Your task to perform on an android device: turn on showing notifications on the lock screen Image 0: 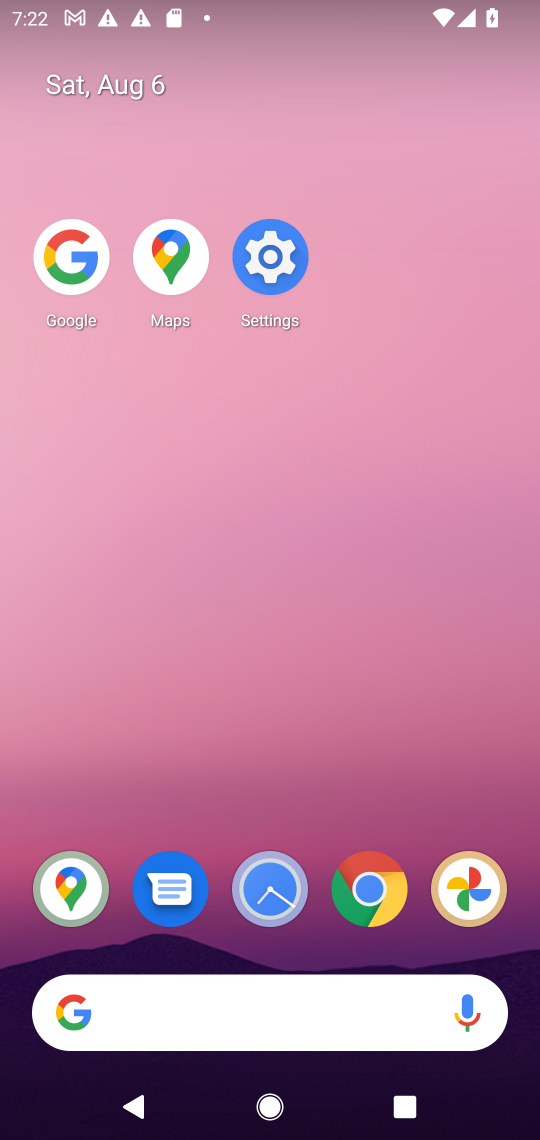
Step 0: click (268, 235)
Your task to perform on an android device: turn on showing notifications on the lock screen Image 1: 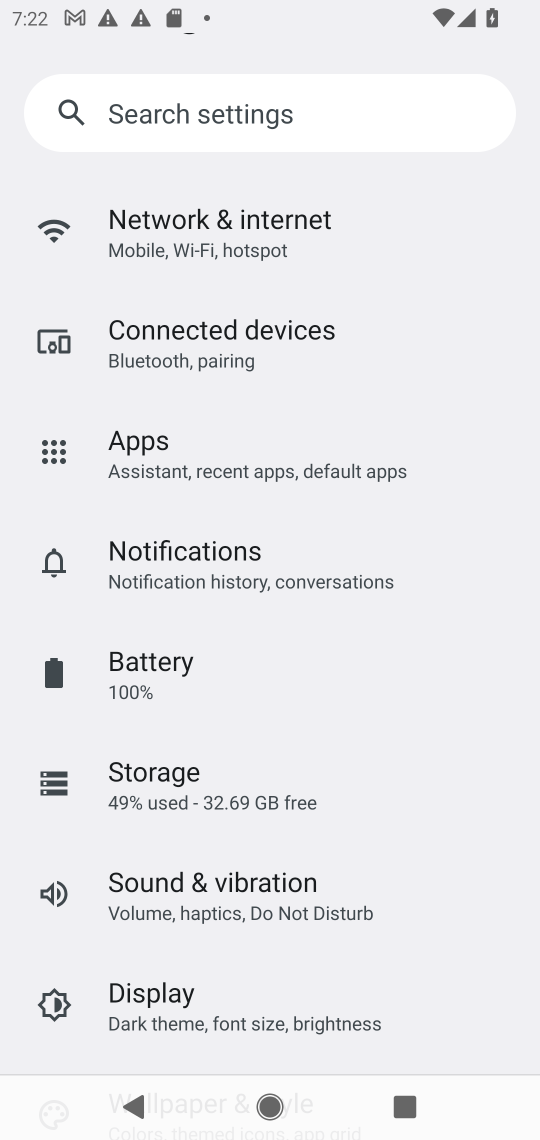
Step 1: click (333, 562)
Your task to perform on an android device: turn on showing notifications on the lock screen Image 2: 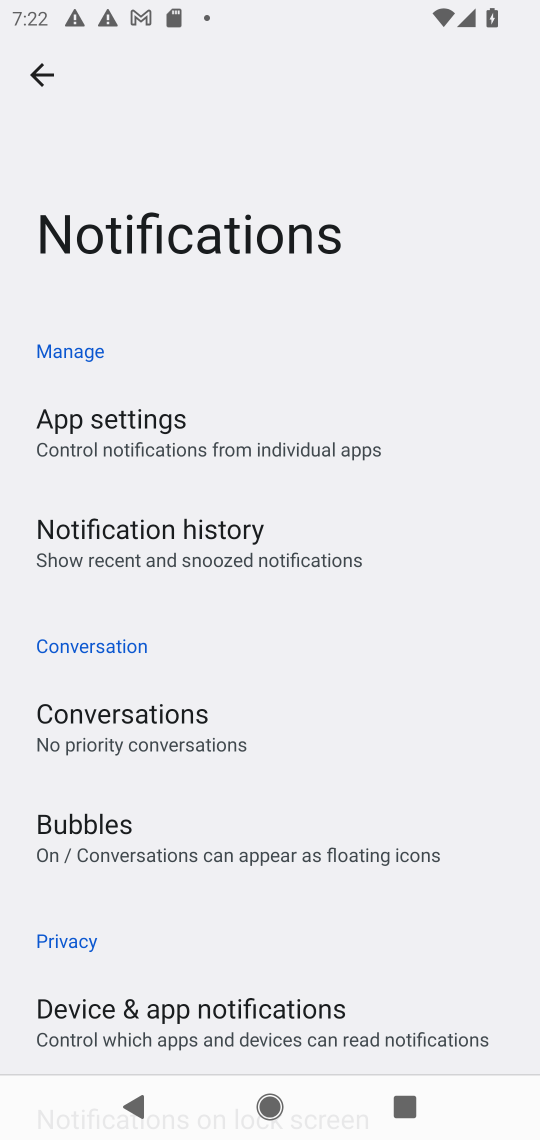
Step 2: drag from (254, 787) to (194, 349)
Your task to perform on an android device: turn on showing notifications on the lock screen Image 3: 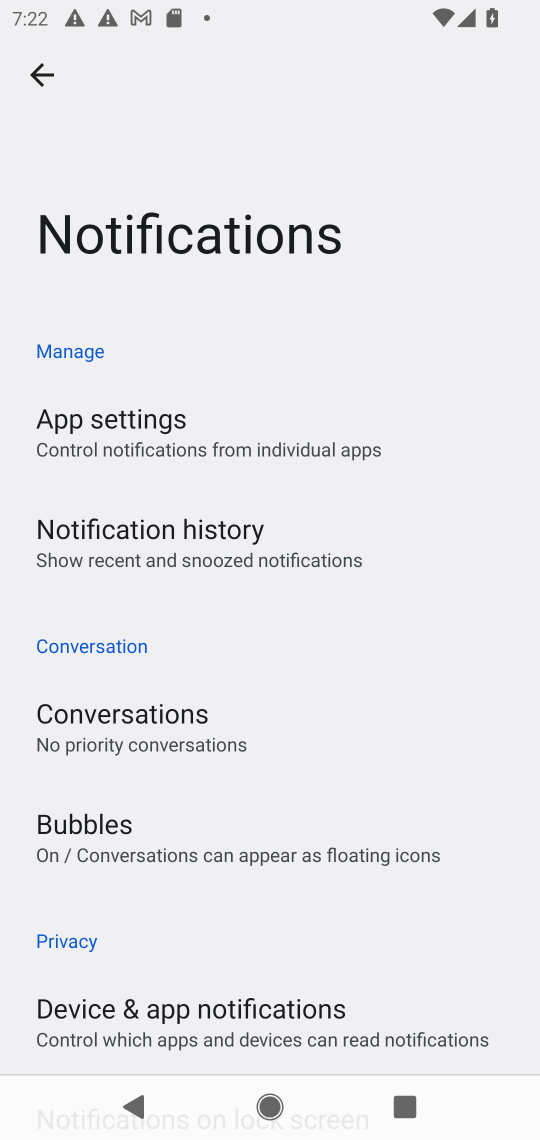
Step 3: drag from (262, 627) to (256, 327)
Your task to perform on an android device: turn on showing notifications on the lock screen Image 4: 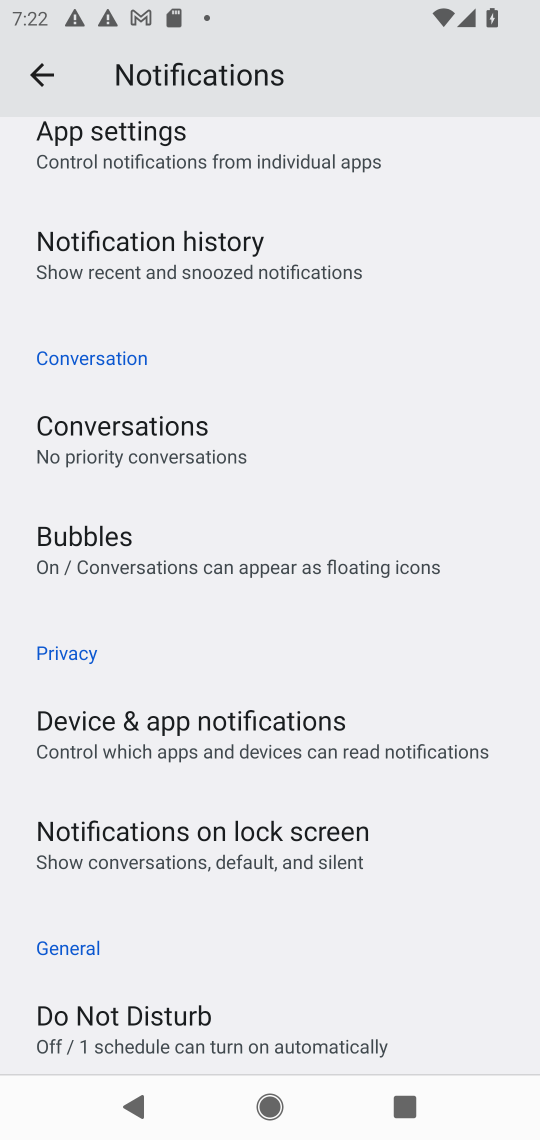
Step 4: click (392, 871)
Your task to perform on an android device: turn on showing notifications on the lock screen Image 5: 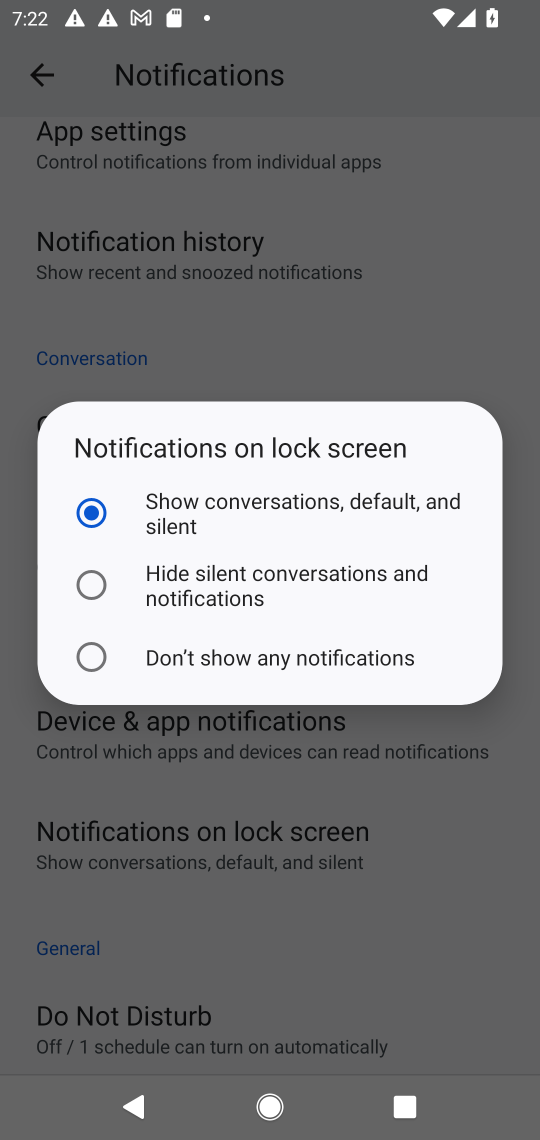
Step 5: task complete